Your task to perform on an android device: change alarm snooze length Image 0: 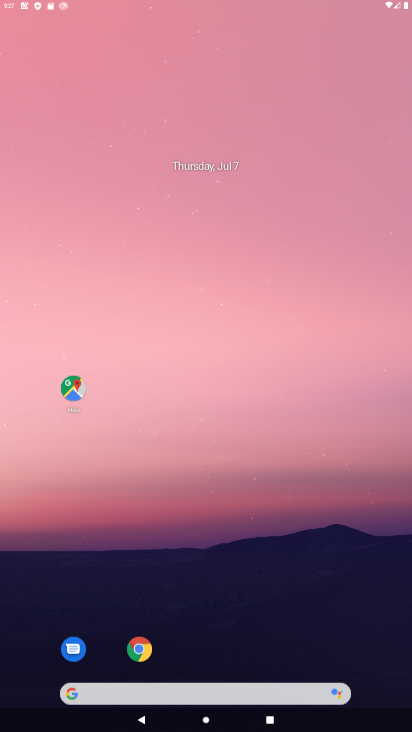
Step 0: press home button
Your task to perform on an android device: change alarm snooze length Image 1: 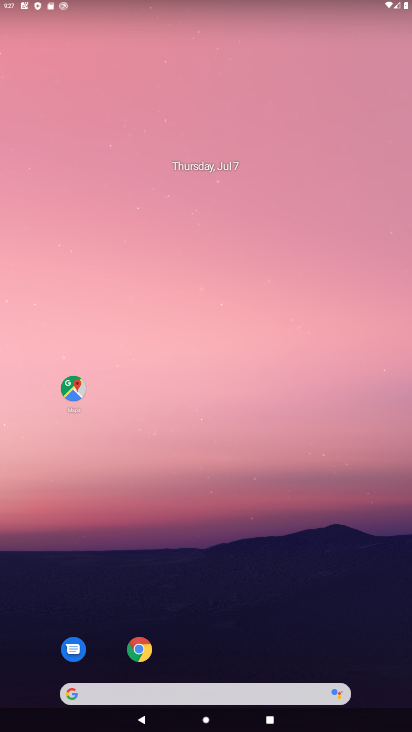
Step 1: drag from (244, 609) to (209, 242)
Your task to perform on an android device: change alarm snooze length Image 2: 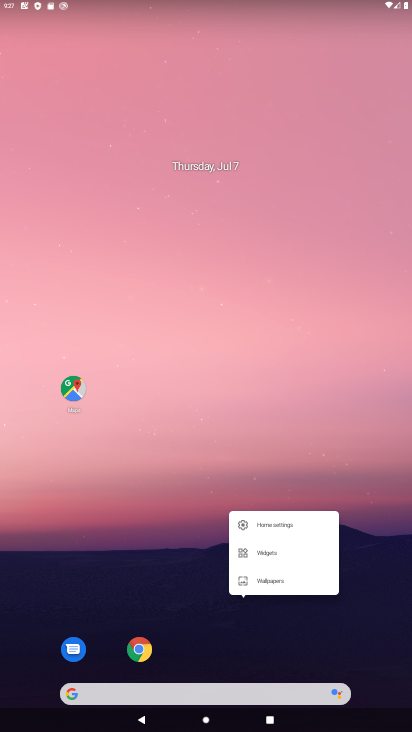
Step 2: click (150, 405)
Your task to perform on an android device: change alarm snooze length Image 3: 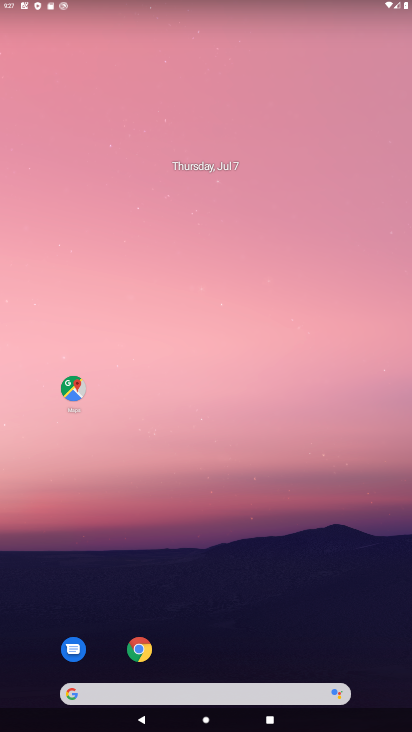
Step 3: drag from (253, 607) to (227, 262)
Your task to perform on an android device: change alarm snooze length Image 4: 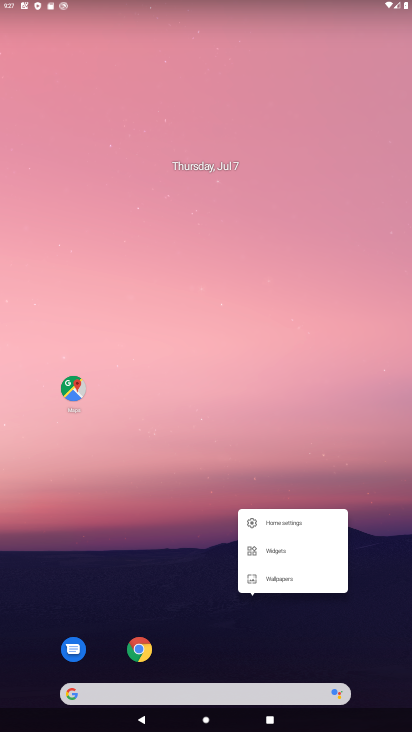
Step 4: click (239, 351)
Your task to perform on an android device: change alarm snooze length Image 5: 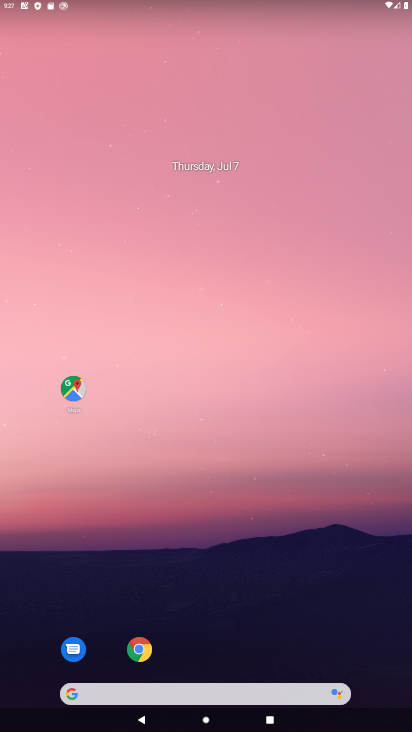
Step 5: drag from (216, 502) to (190, 20)
Your task to perform on an android device: change alarm snooze length Image 6: 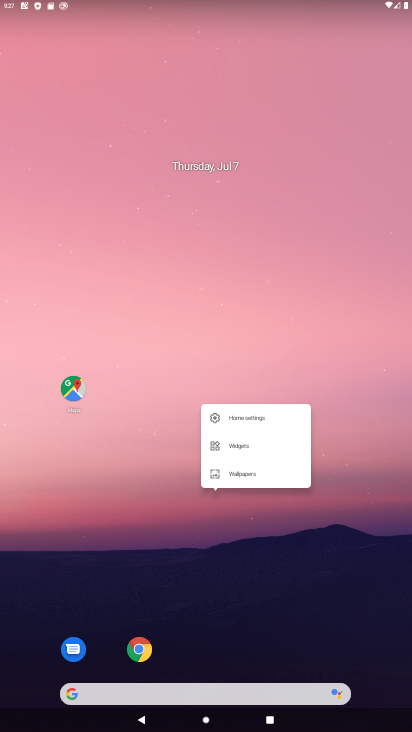
Step 6: click (299, 354)
Your task to perform on an android device: change alarm snooze length Image 7: 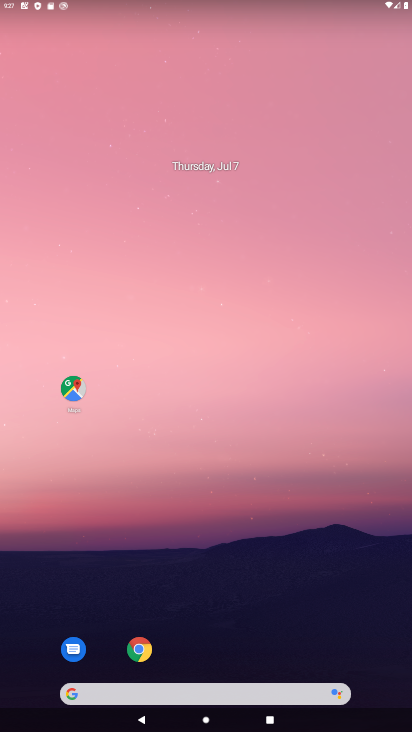
Step 7: drag from (244, 488) to (220, 77)
Your task to perform on an android device: change alarm snooze length Image 8: 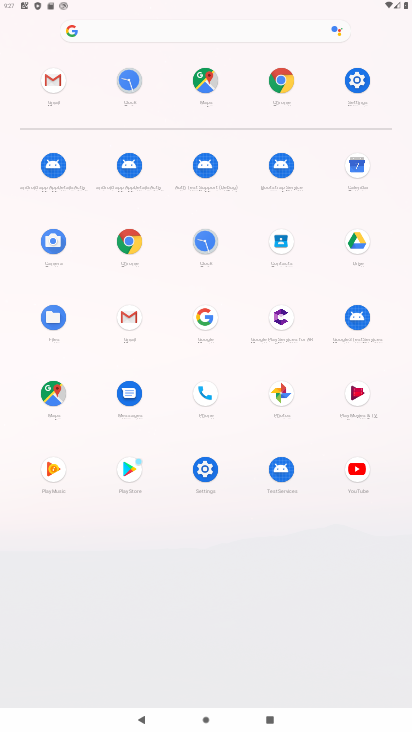
Step 8: click (200, 239)
Your task to perform on an android device: change alarm snooze length Image 9: 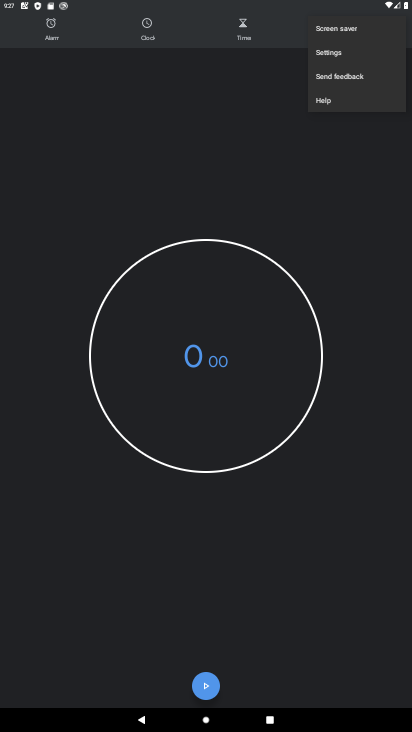
Step 9: click (55, 25)
Your task to perform on an android device: change alarm snooze length Image 10: 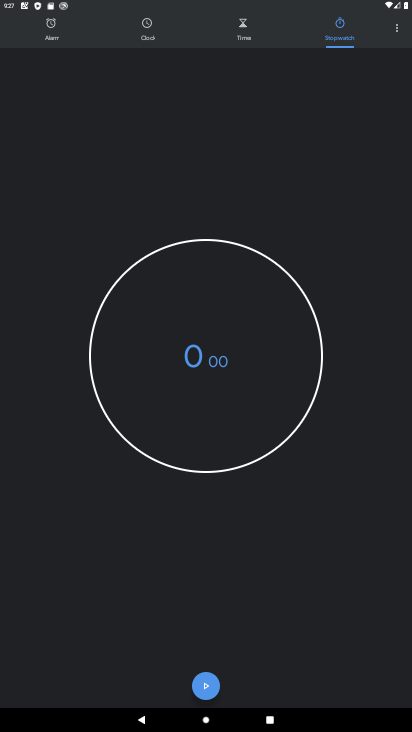
Step 10: click (53, 32)
Your task to perform on an android device: change alarm snooze length Image 11: 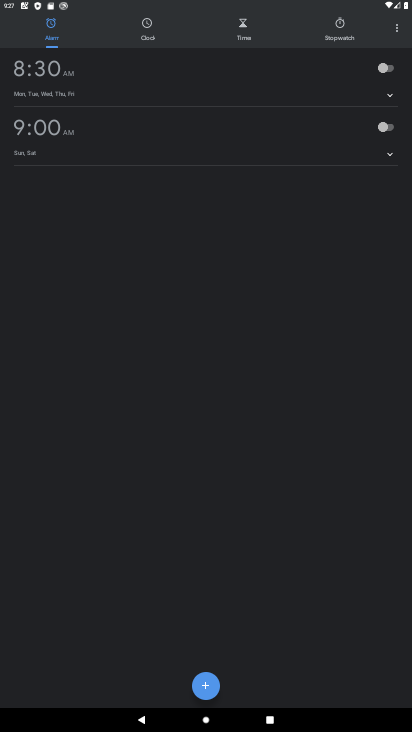
Step 11: click (397, 34)
Your task to perform on an android device: change alarm snooze length Image 12: 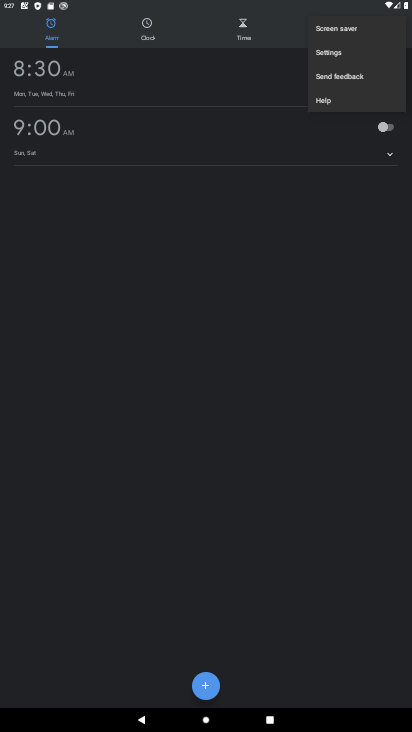
Step 12: click (326, 55)
Your task to perform on an android device: change alarm snooze length Image 13: 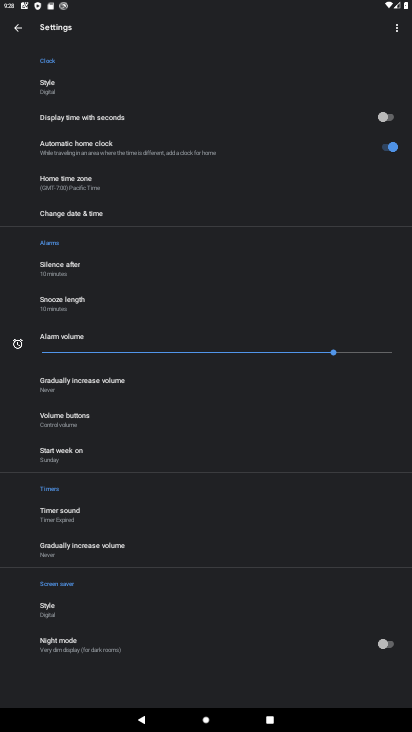
Step 13: click (60, 310)
Your task to perform on an android device: change alarm snooze length Image 14: 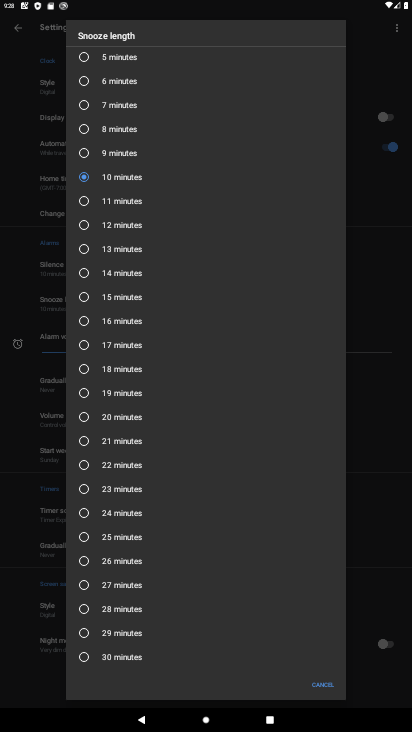
Step 14: click (87, 98)
Your task to perform on an android device: change alarm snooze length Image 15: 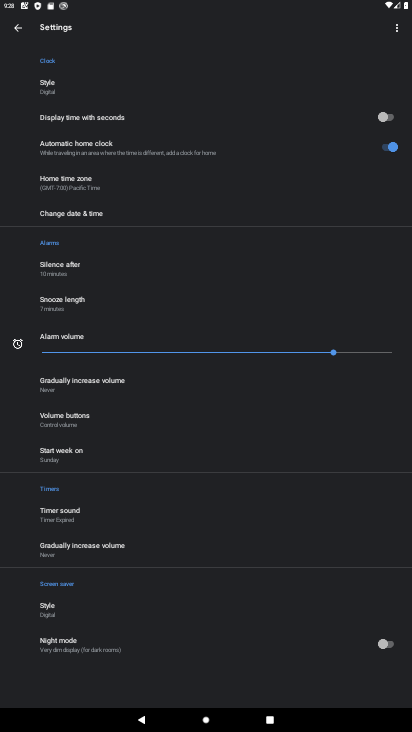
Step 15: task complete